Your task to perform on an android device: open app "AliExpress" (install if not already installed) Image 0: 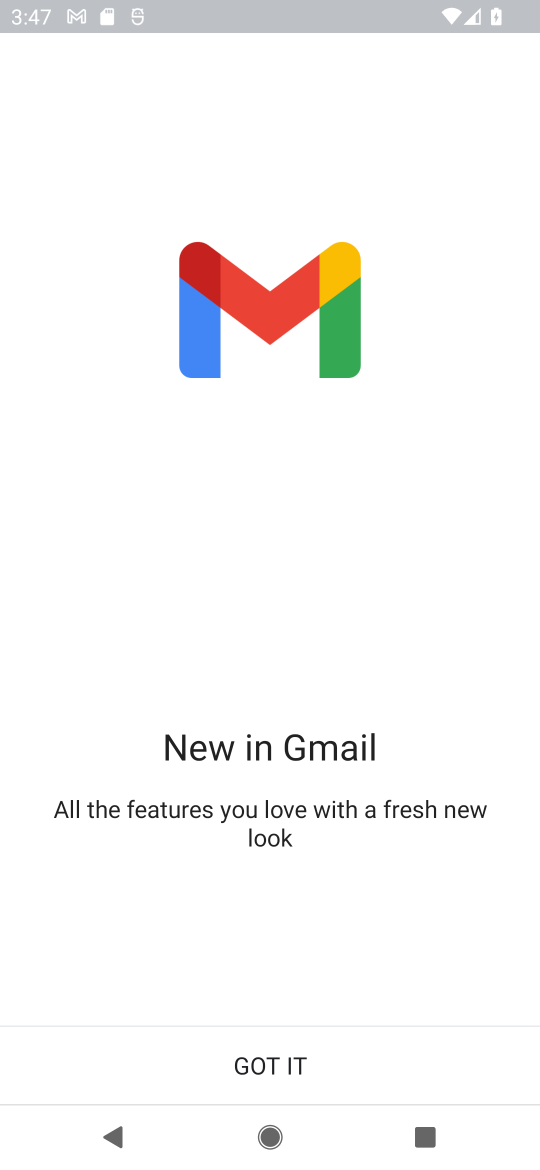
Step 0: press home button
Your task to perform on an android device: open app "AliExpress" (install if not already installed) Image 1: 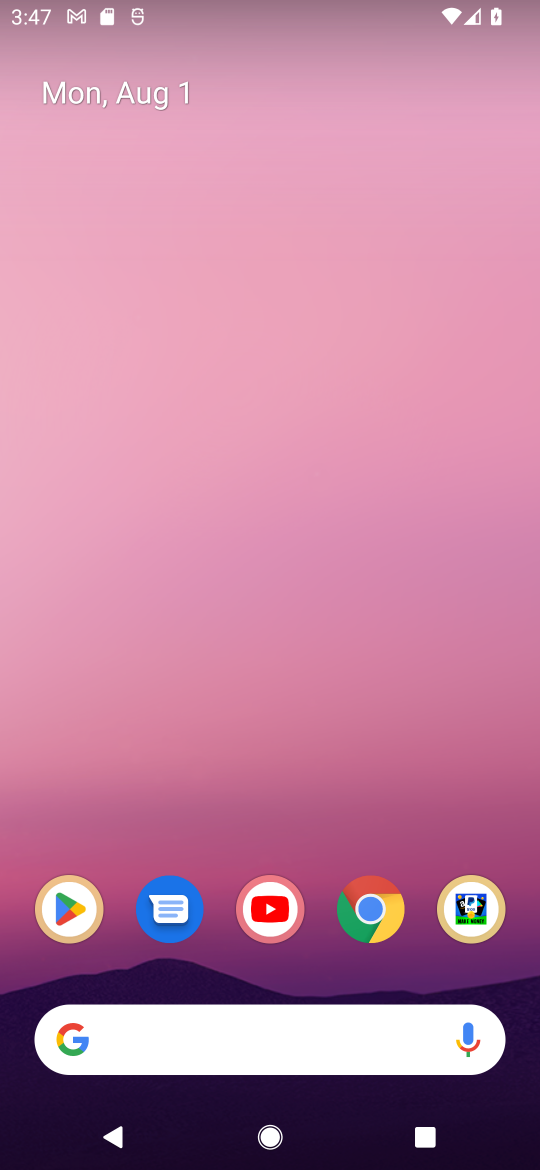
Step 1: click (52, 889)
Your task to perform on an android device: open app "AliExpress" (install if not already installed) Image 2: 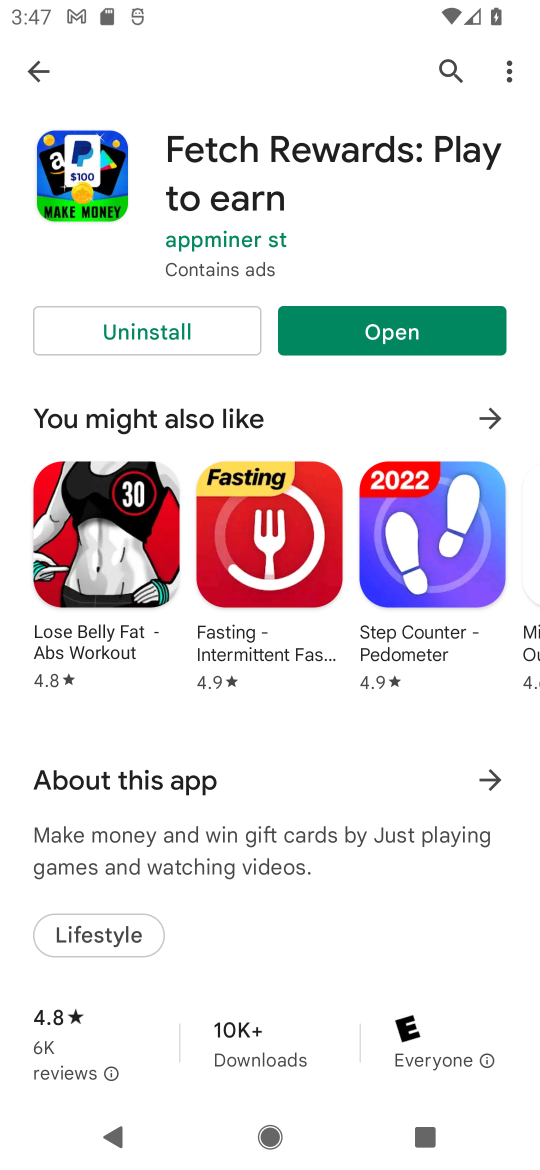
Step 2: click (34, 68)
Your task to perform on an android device: open app "AliExpress" (install if not already installed) Image 3: 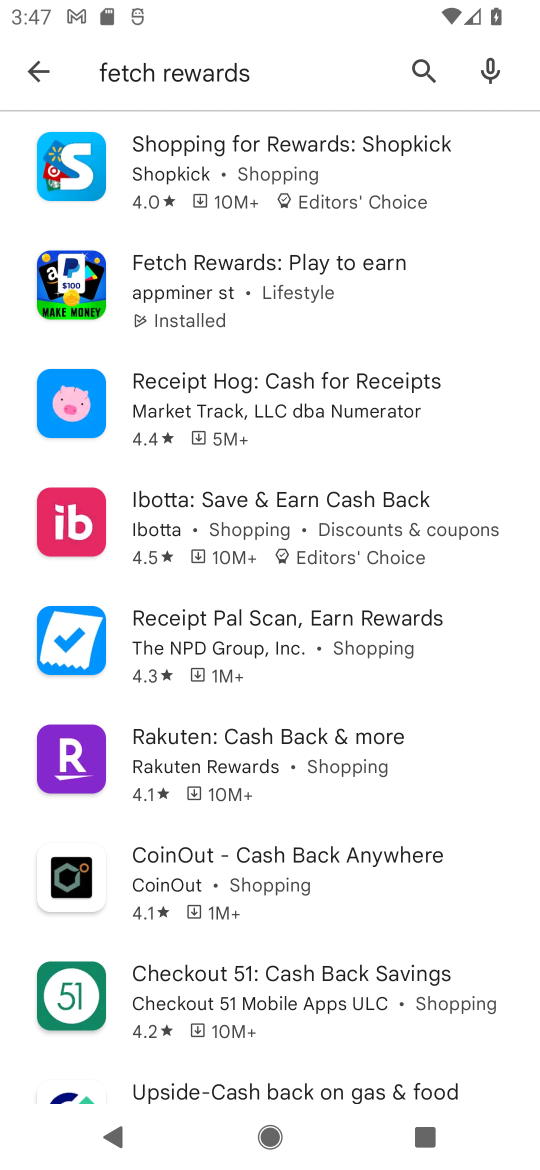
Step 3: click (208, 74)
Your task to perform on an android device: open app "AliExpress" (install if not already installed) Image 4: 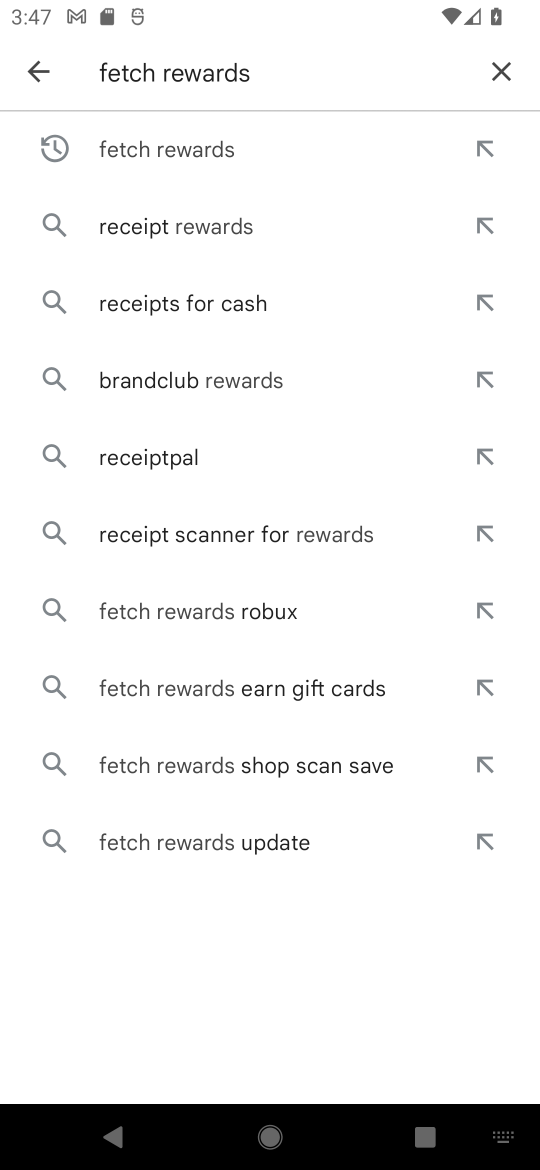
Step 4: click (500, 68)
Your task to perform on an android device: open app "AliExpress" (install if not already installed) Image 5: 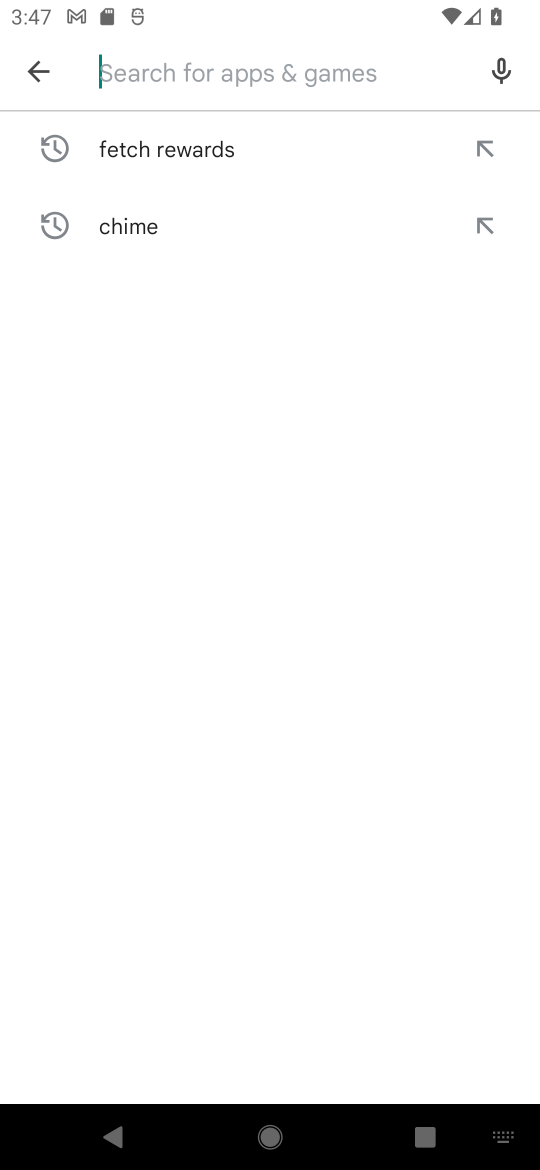
Step 5: type "Ali Express"
Your task to perform on an android device: open app "AliExpress" (install if not already installed) Image 6: 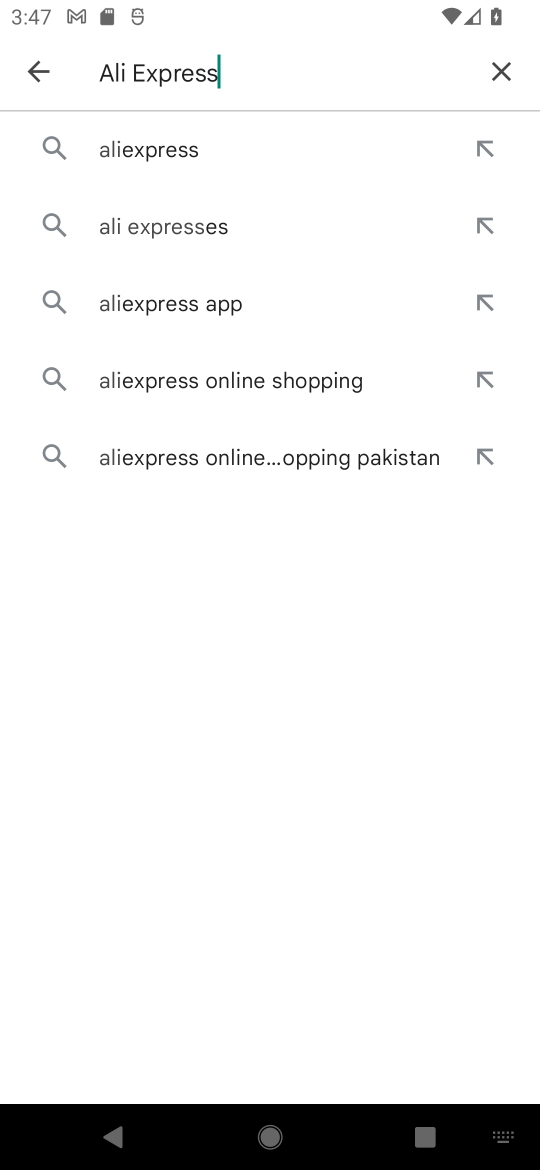
Step 6: click (152, 157)
Your task to perform on an android device: open app "AliExpress" (install if not already installed) Image 7: 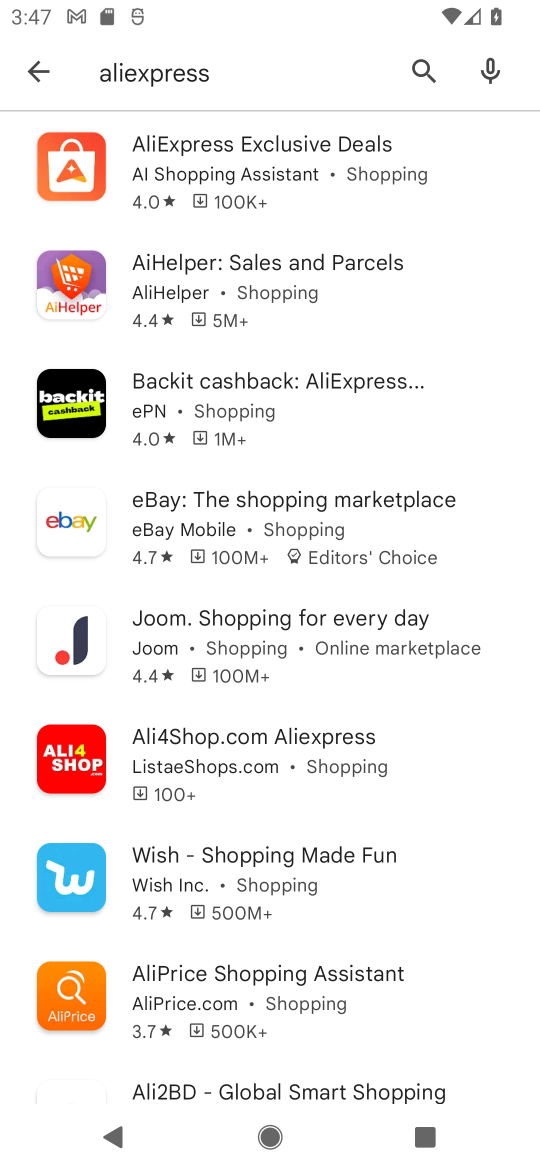
Step 7: click (241, 184)
Your task to perform on an android device: open app "AliExpress" (install if not already installed) Image 8: 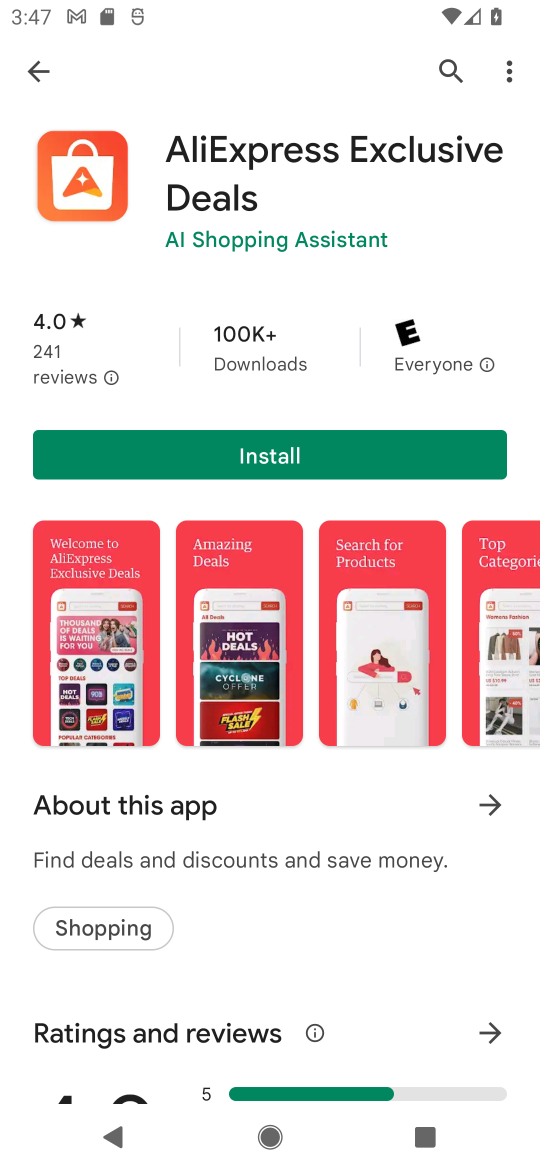
Step 8: click (275, 458)
Your task to perform on an android device: open app "AliExpress" (install if not already installed) Image 9: 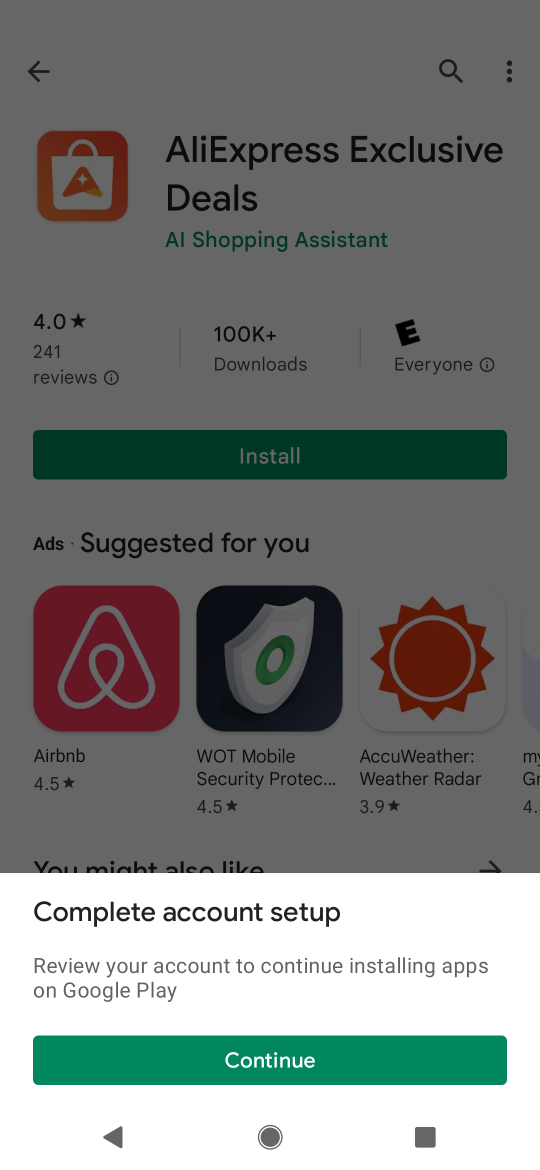
Step 9: click (340, 1076)
Your task to perform on an android device: open app "AliExpress" (install if not already installed) Image 10: 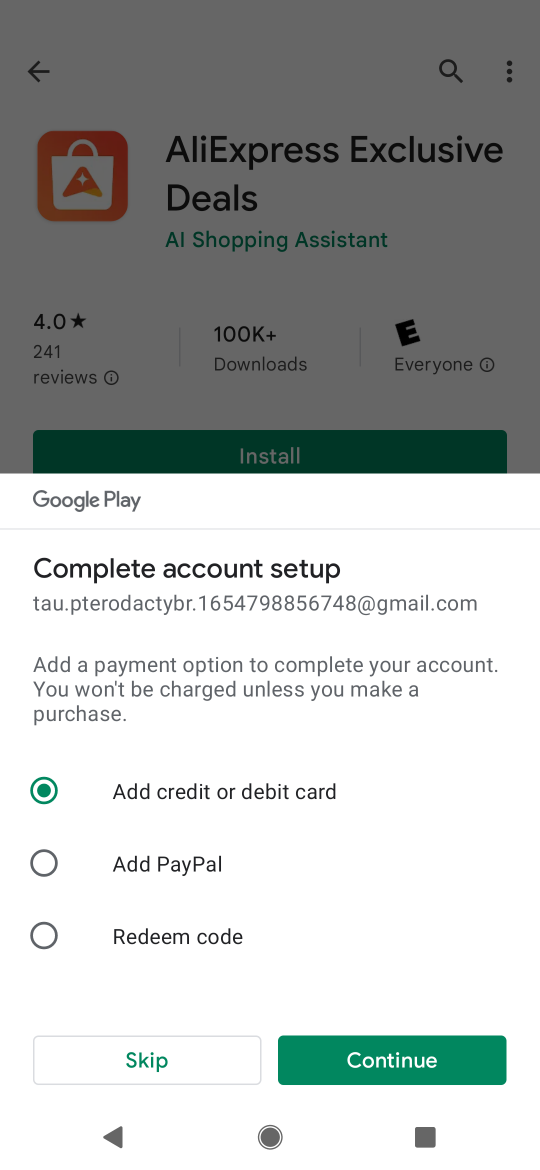
Step 10: click (186, 1060)
Your task to perform on an android device: open app "AliExpress" (install if not already installed) Image 11: 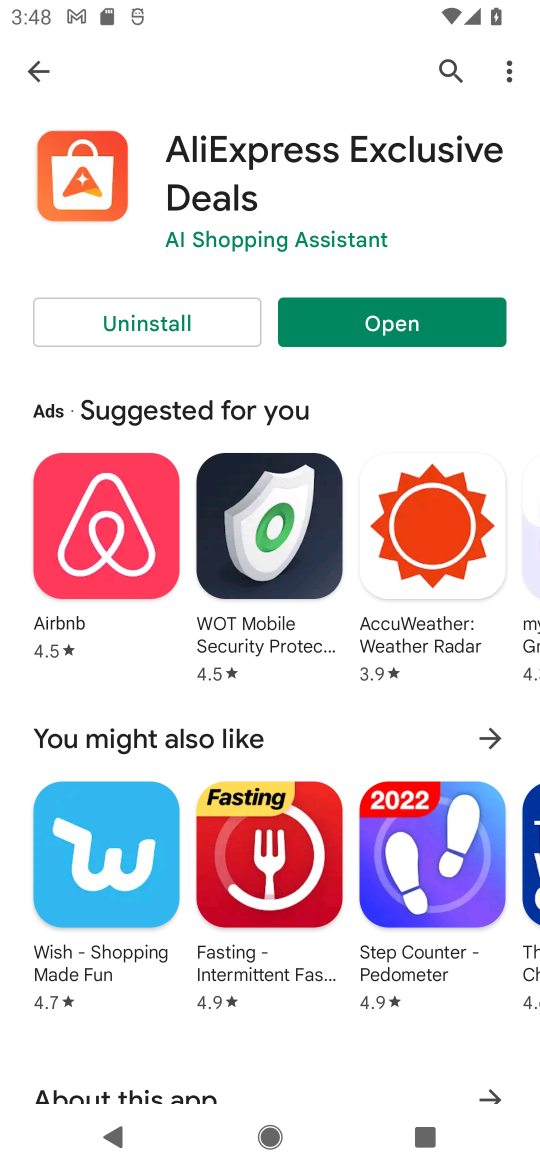
Step 11: click (386, 329)
Your task to perform on an android device: open app "AliExpress" (install if not already installed) Image 12: 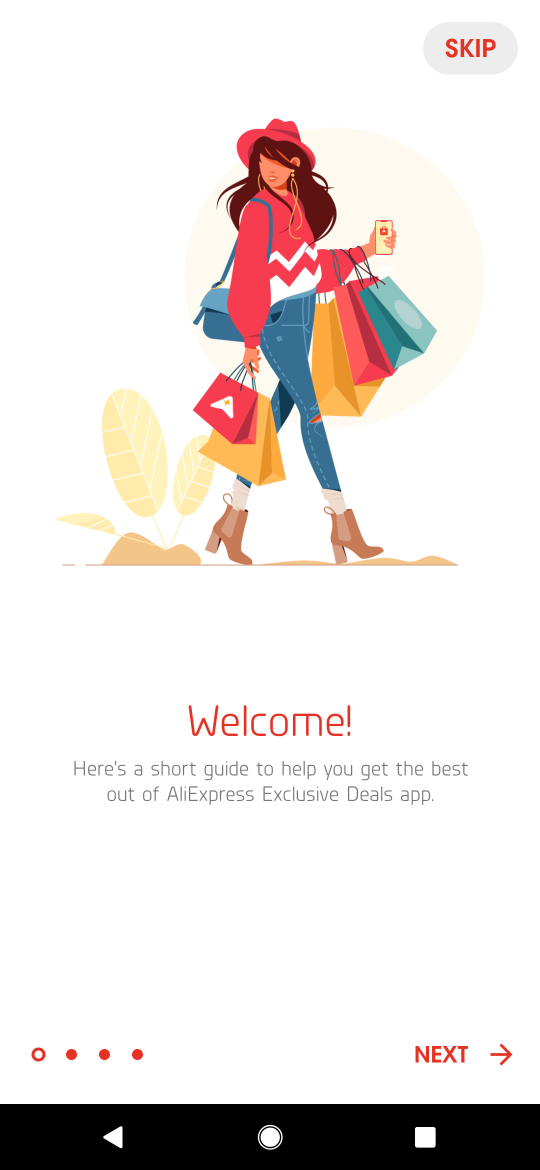
Step 12: click (465, 53)
Your task to perform on an android device: open app "AliExpress" (install if not already installed) Image 13: 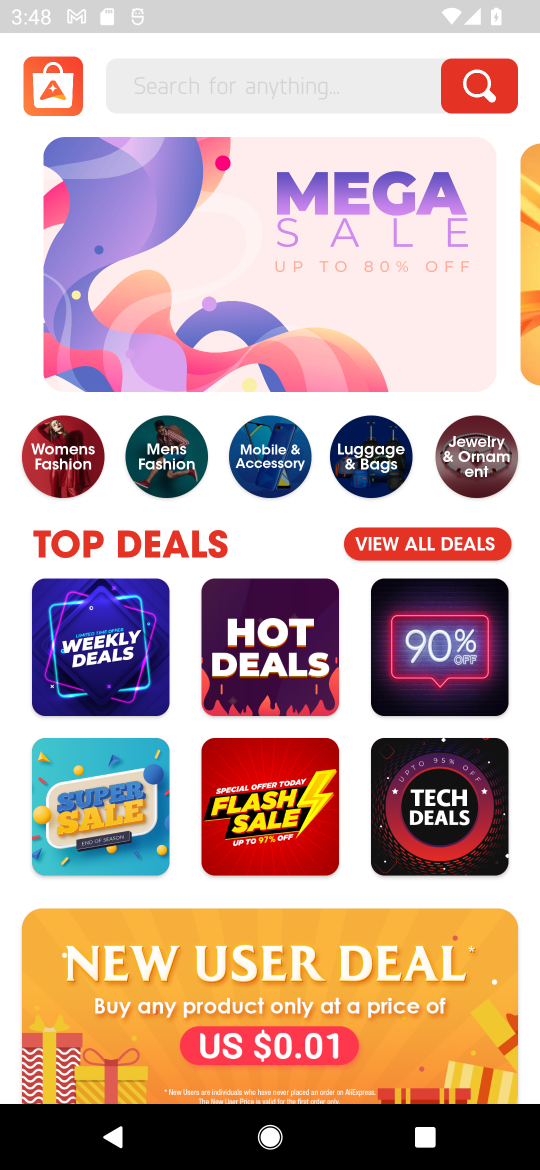
Step 13: task complete